Your task to perform on an android device: Open wifi settings Image 0: 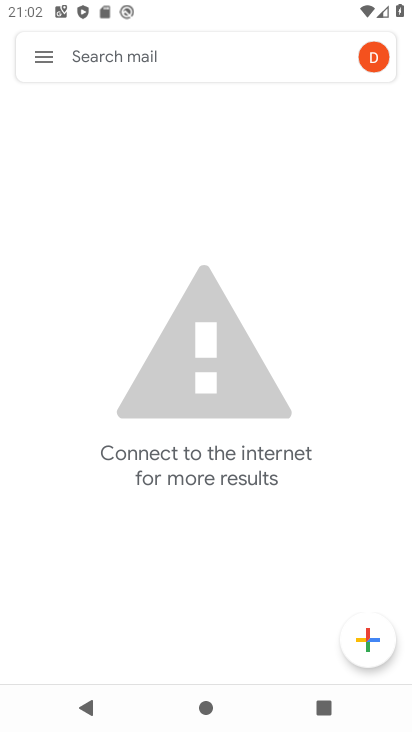
Step 0: press home button
Your task to perform on an android device: Open wifi settings Image 1: 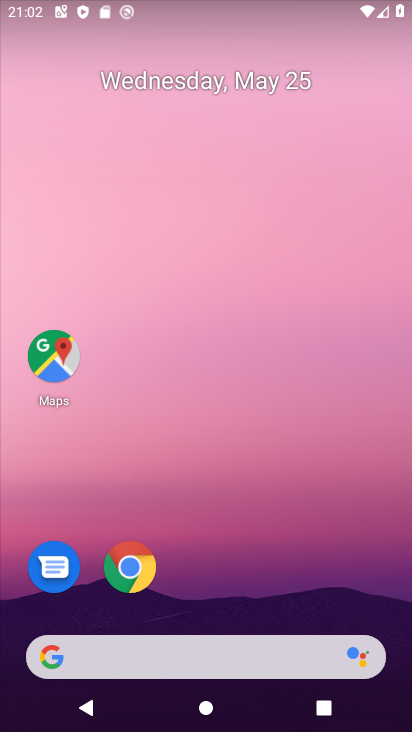
Step 1: drag from (242, 452) to (274, 58)
Your task to perform on an android device: Open wifi settings Image 2: 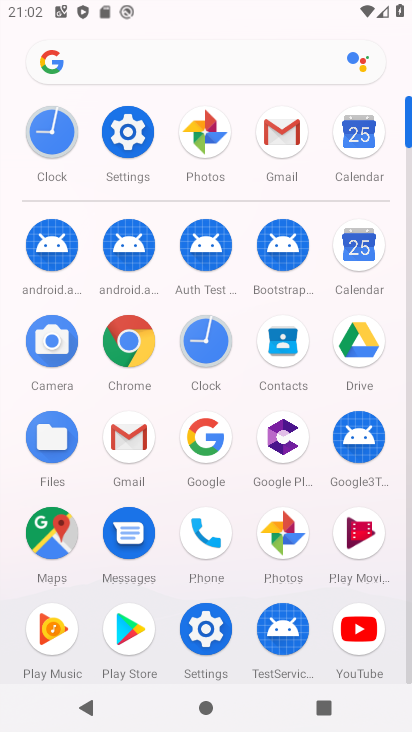
Step 2: click (135, 138)
Your task to perform on an android device: Open wifi settings Image 3: 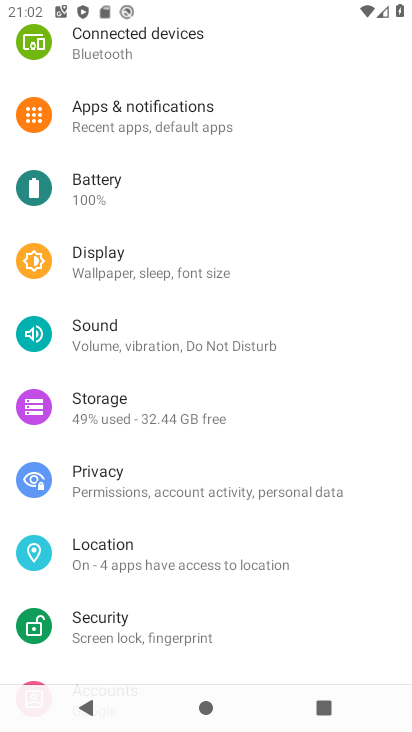
Step 3: drag from (149, 226) to (154, 405)
Your task to perform on an android device: Open wifi settings Image 4: 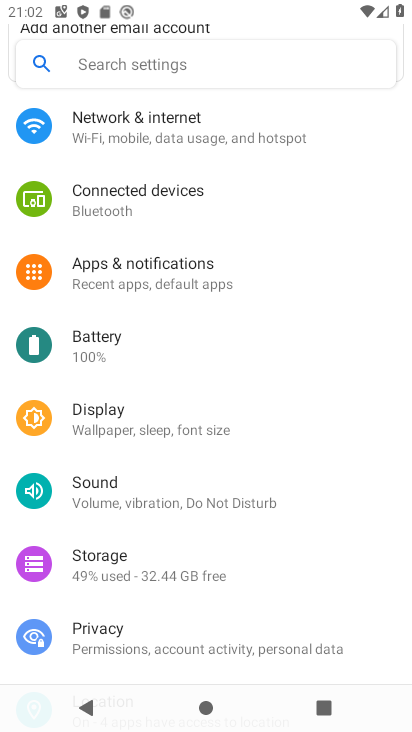
Step 4: click (246, 127)
Your task to perform on an android device: Open wifi settings Image 5: 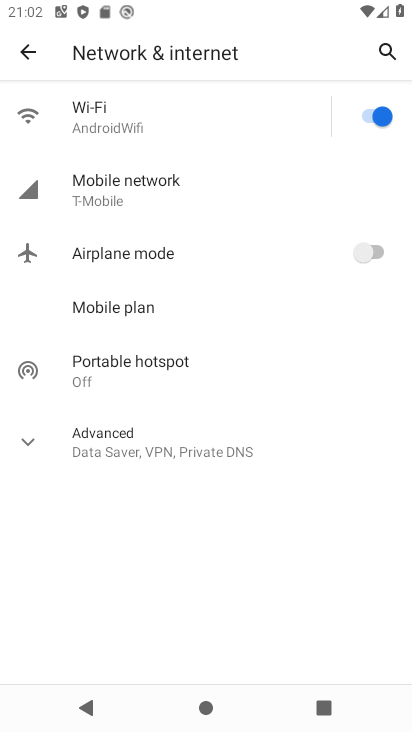
Step 5: click (176, 103)
Your task to perform on an android device: Open wifi settings Image 6: 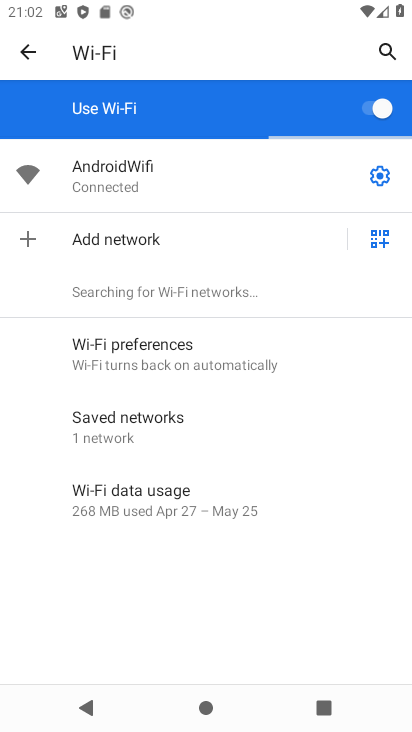
Step 6: task complete